Your task to perform on an android device: open a new tab in the chrome app Image 0: 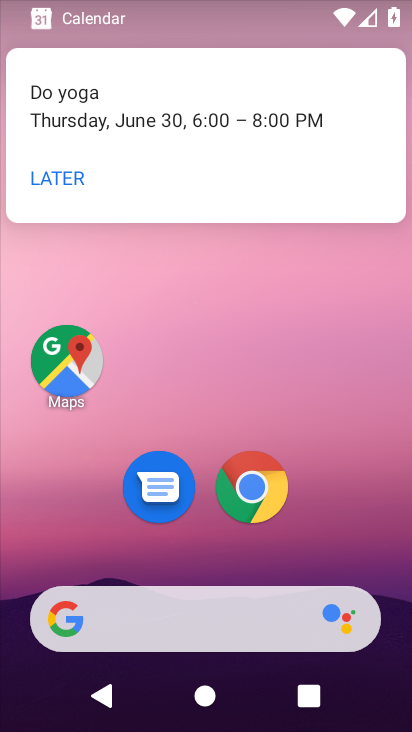
Step 0: click (251, 492)
Your task to perform on an android device: open a new tab in the chrome app Image 1: 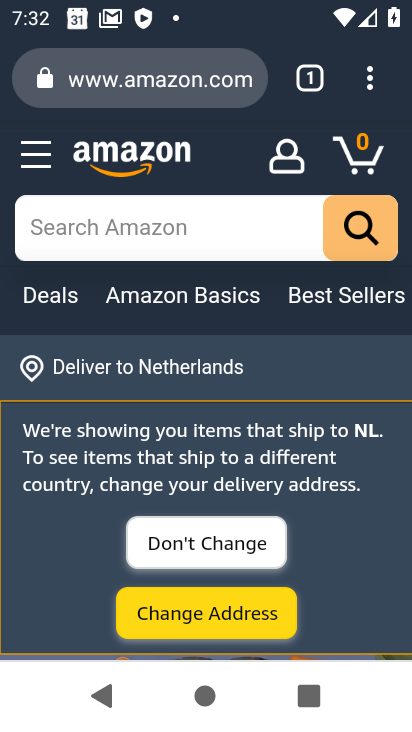
Step 1: click (368, 86)
Your task to perform on an android device: open a new tab in the chrome app Image 2: 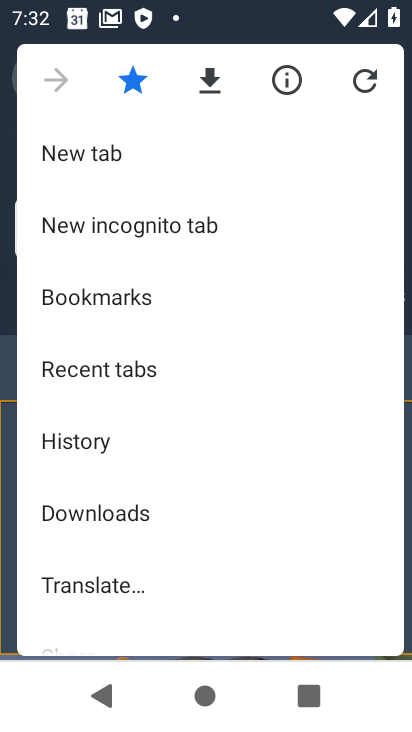
Step 2: click (89, 154)
Your task to perform on an android device: open a new tab in the chrome app Image 3: 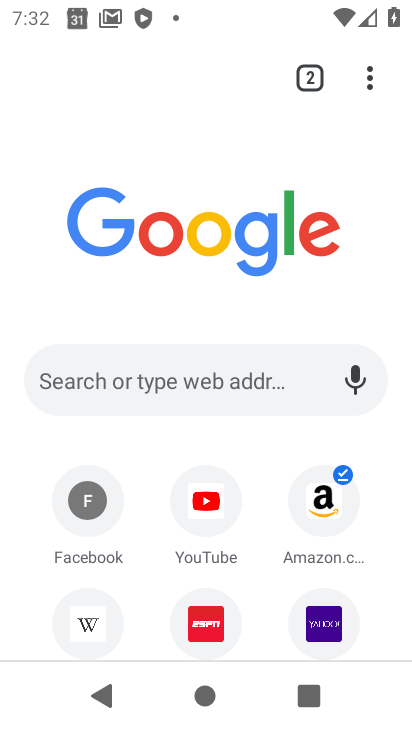
Step 3: task complete